Your task to perform on an android device: See recent photos Image 0: 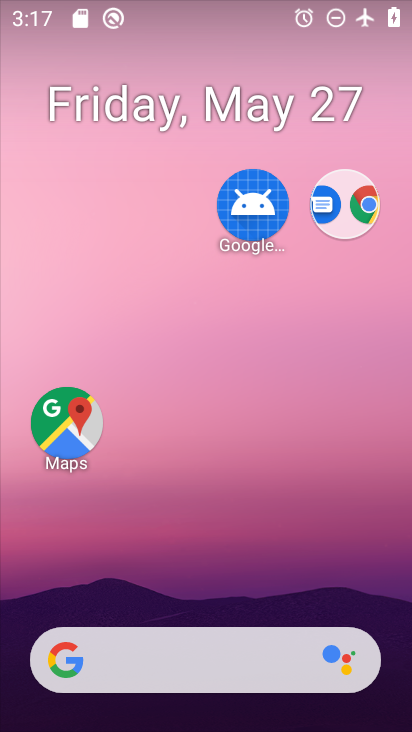
Step 0: drag from (149, 691) to (232, 114)
Your task to perform on an android device: See recent photos Image 1: 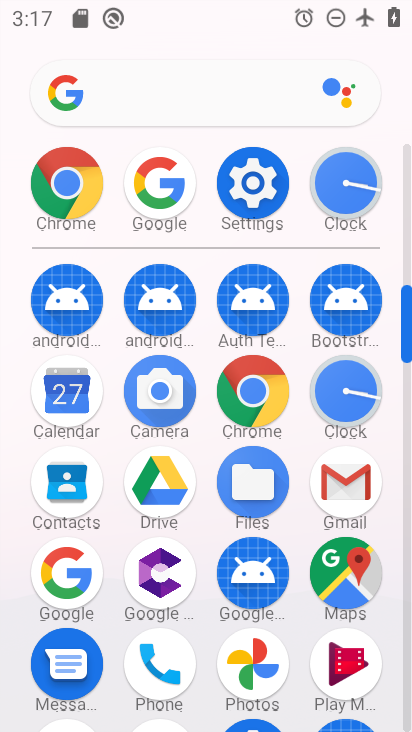
Step 1: click (266, 672)
Your task to perform on an android device: See recent photos Image 2: 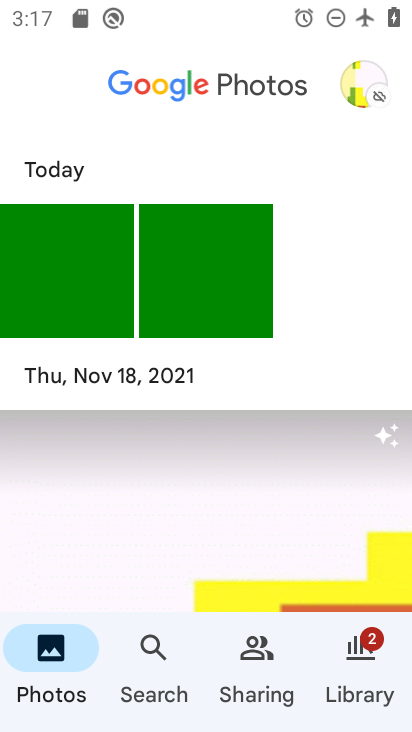
Step 2: task complete